Your task to perform on an android device: turn smart compose on in the gmail app Image 0: 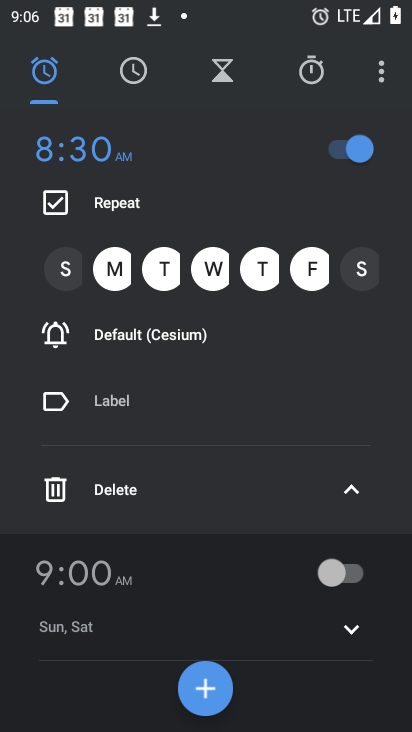
Step 0: press home button
Your task to perform on an android device: turn smart compose on in the gmail app Image 1: 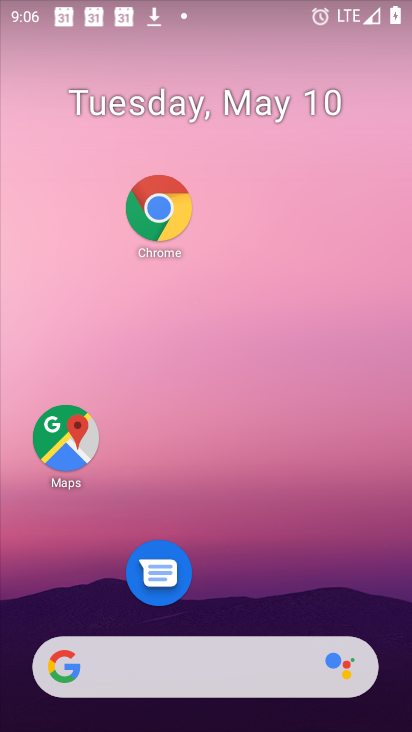
Step 1: drag from (298, 666) to (272, 228)
Your task to perform on an android device: turn smart compose on in the gmail app Image 2: 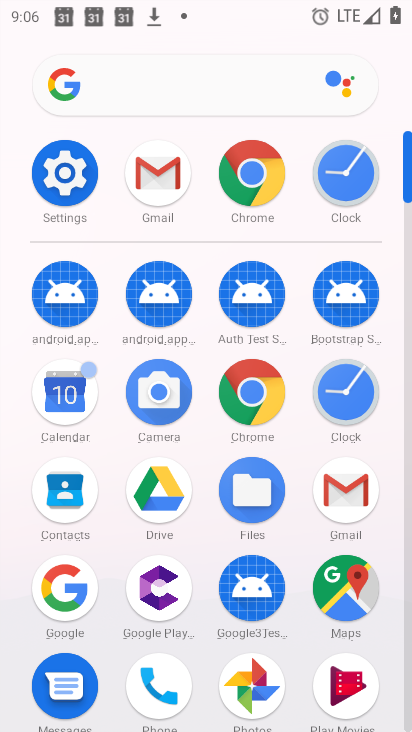
Step 2: click (171, 182)
Your task to perform on an android device: turn smart compose on in the gmail app Image 3: 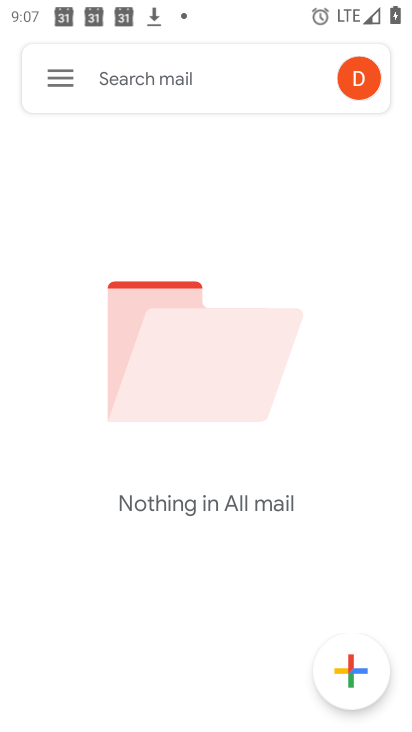
Step 3: click (40, 80)
Your task to perform on an android device: turn smart compose on in the gmail app Image 4: 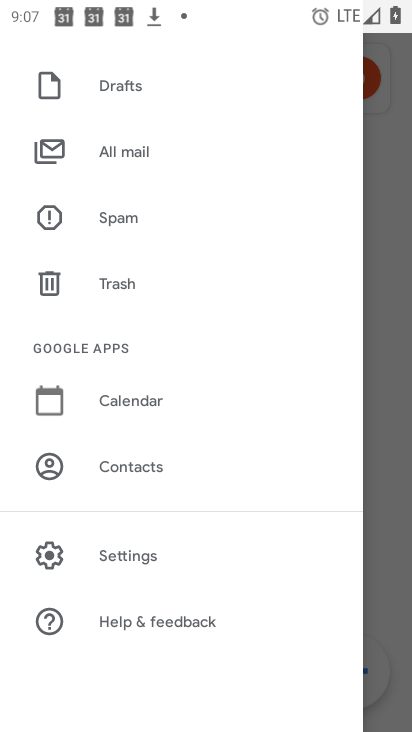
Step 4: click (144, 541)
Your task to perform on an android device: turn smart compose on in the gmail app Image 5: 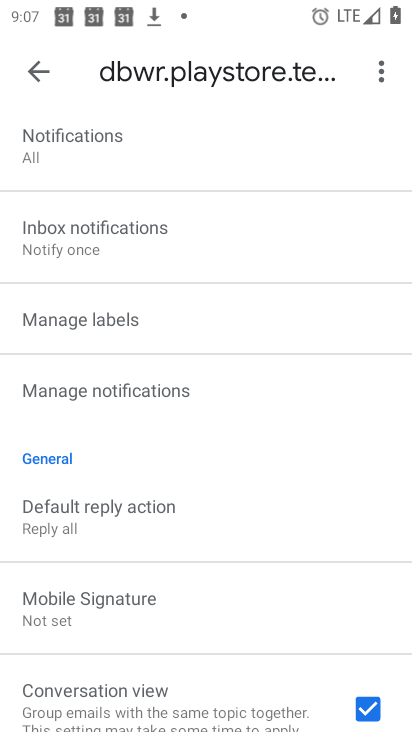
Step 5: drag from (248, 600) to (310, 300)
Your task to perform on an android device: turn smart compose on in the gmail app Image 6: 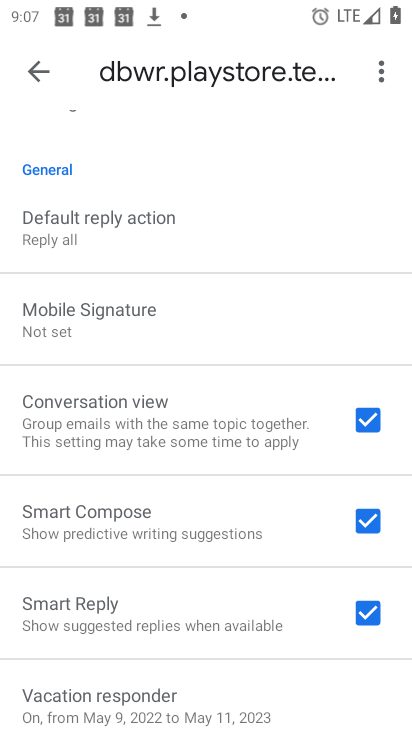
Step 6: click (361, 524)
Your task to perform on an android device: turn smart compose on in the gmail app Image 7: 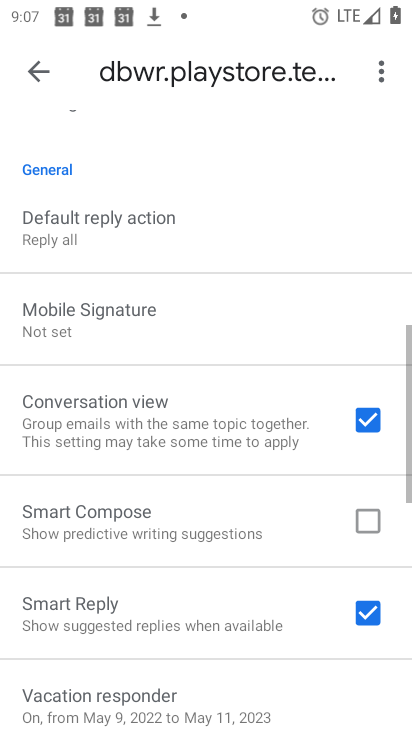
Step 7: click (361, 525)
Your task to perform on an android device: turn smart compose on in the gmail app Image 8: 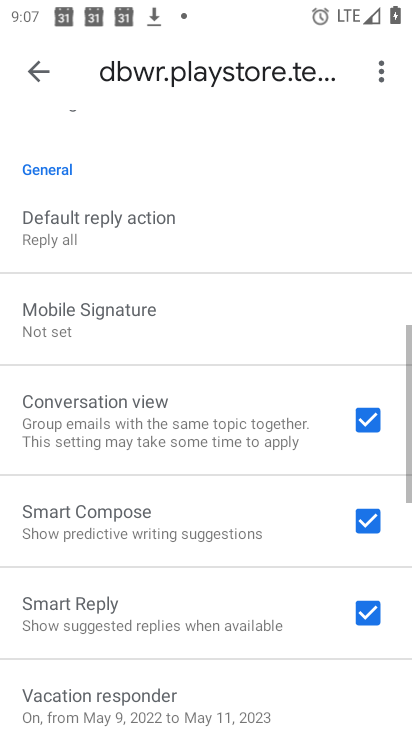
Step 8: task complete